Your task to perform on an android device: turn on airplane mode Image 0: 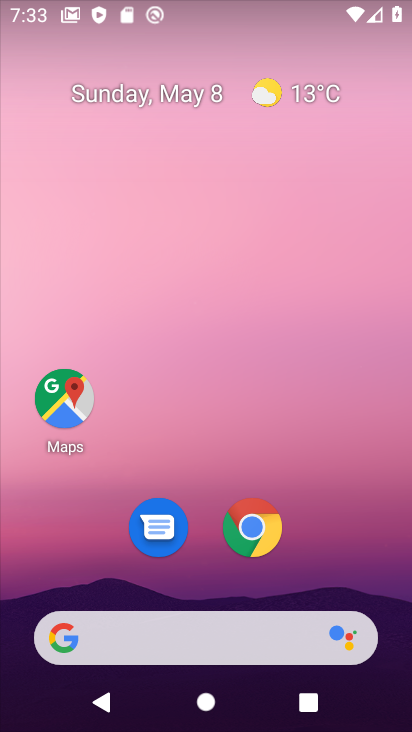
Step 0: drag from (217, 601) to (145, 12)
Your task to perform on an android device: turn on airplane mode Image 1: 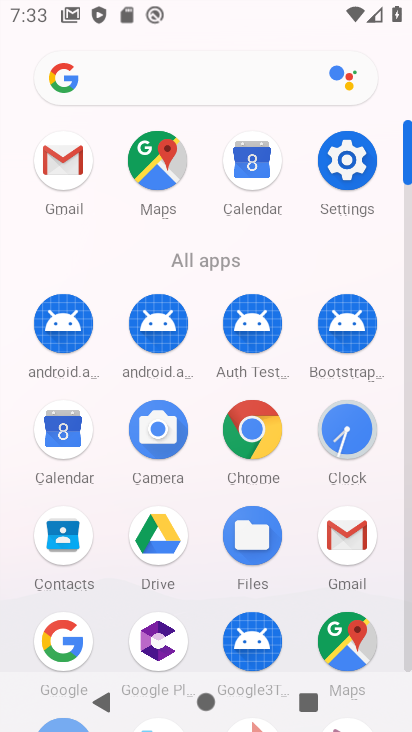
Step 1: click (367, 166)
Your task to perform on an android device: turn on airplane mode Image 2: 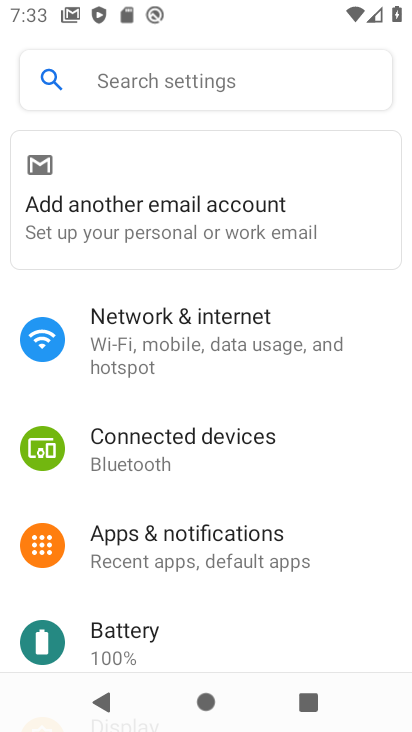
Step 2: click (144, 334)
Your task to perform on an android device: turn on airplane mode Image 3: 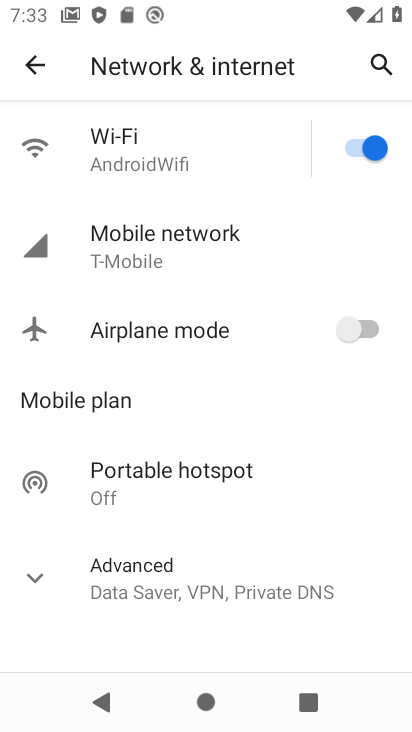
Step 3: click (357, 327)
Your task to perform on an android device: turn on airplane mode Image 4: 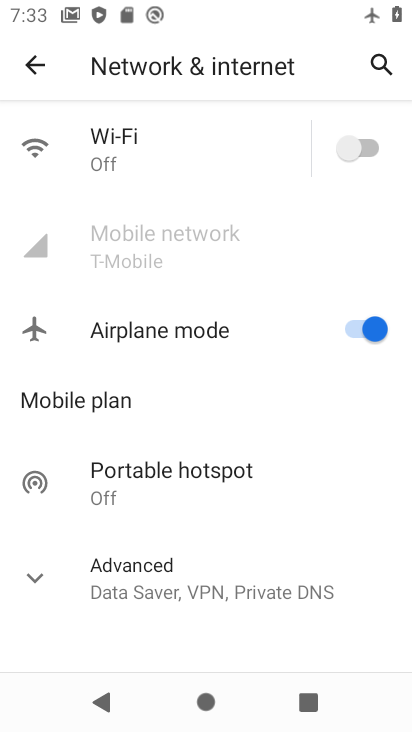
Step 4: task complete